Your task to perform on an android device: turn off location Image 0: 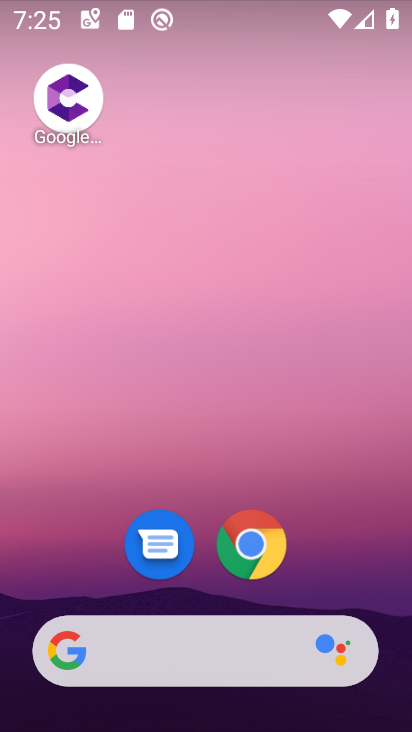
Step 0: drag from (238, 692) to (304, 9)
Your task to perform on an android device: turn off location Image 1: 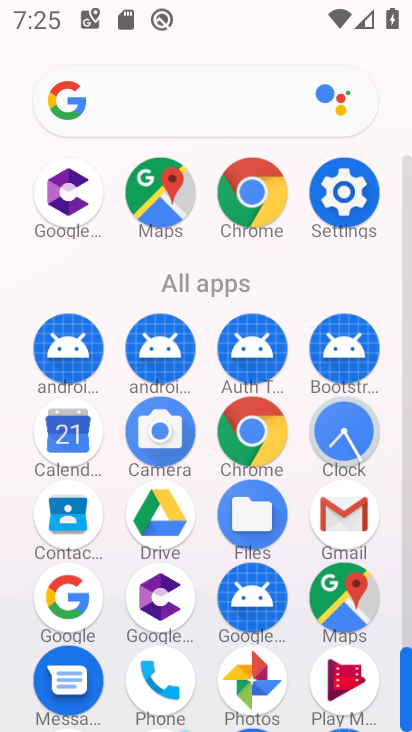
Step 1: click (340, 204)
Your task to perform on an android device: turn off location Image 2: 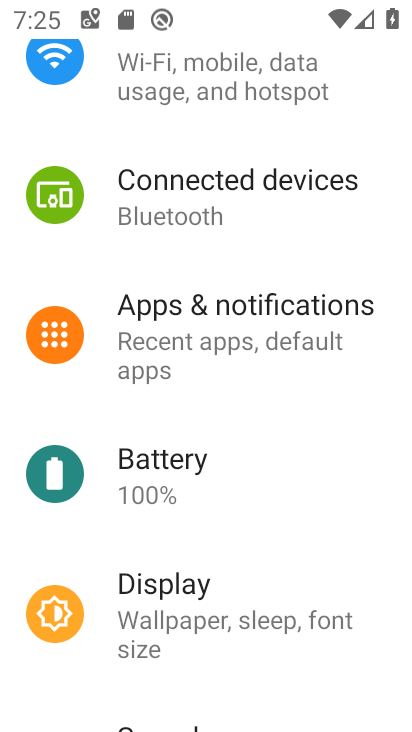
Step 2: drag from (192, 141) to (140, 579)
Your task to perform on an android device: turn off location Image 3: 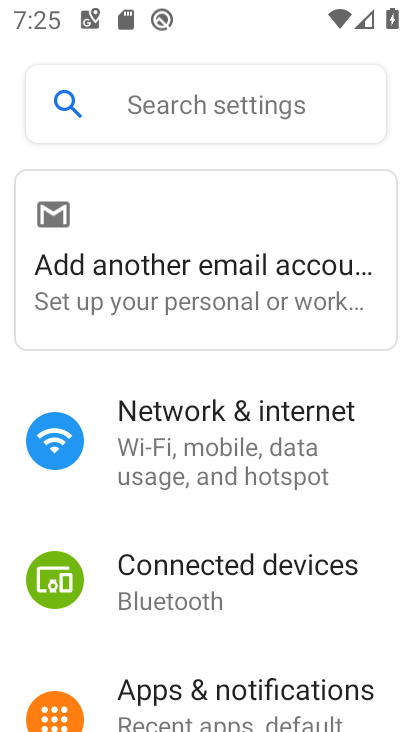
Step 3: click (183, 101)
Your task to perform on an android device: turn off location Image 4: 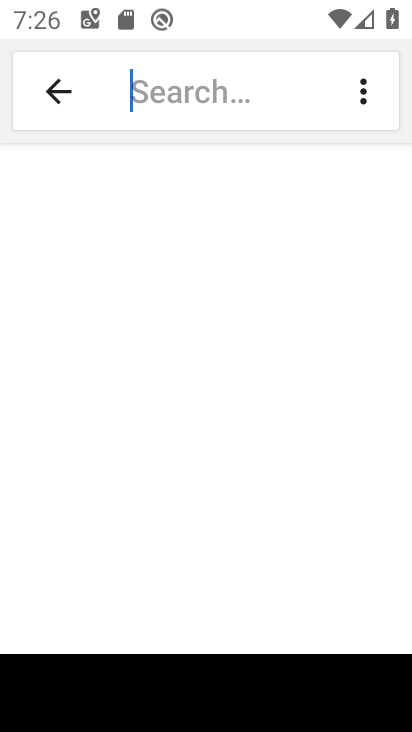
Step 4: drag from (392, 698) to (370, 599)
Your task to perform on an android device: turn off location Image 5: 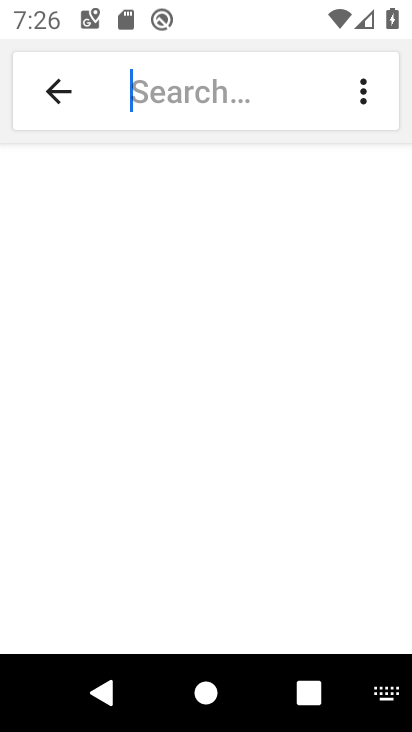
Step 5: click (393, 698)
Your task to perform on an android device: turn off location Image 6: 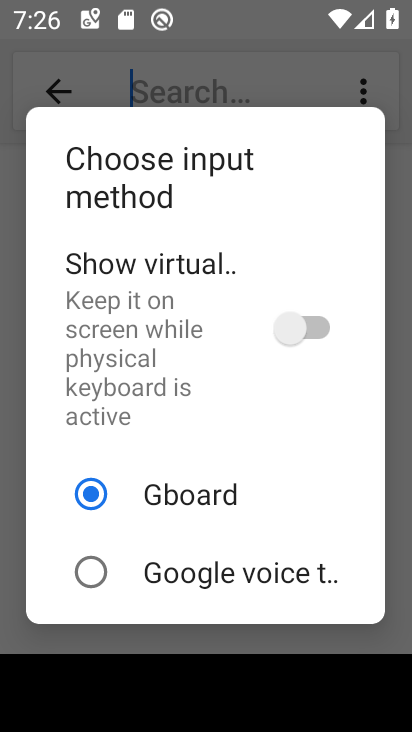
Step 6: click (313, 330)
Your task to perform on an android device: turn off location Image 7: 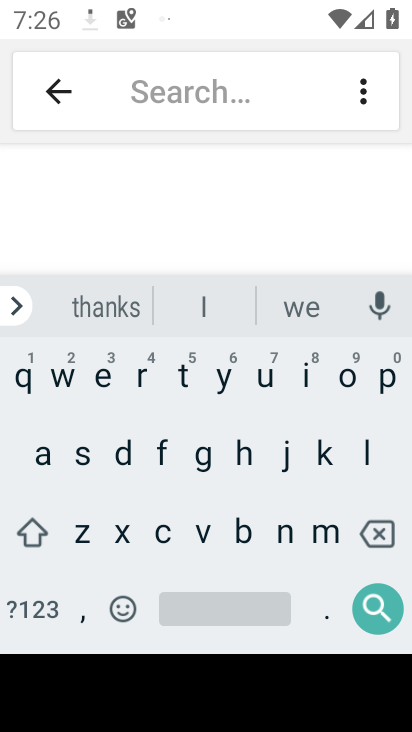
Step 7: click (367, 449)
Your task to perform on an android device: turn off location Image 8: 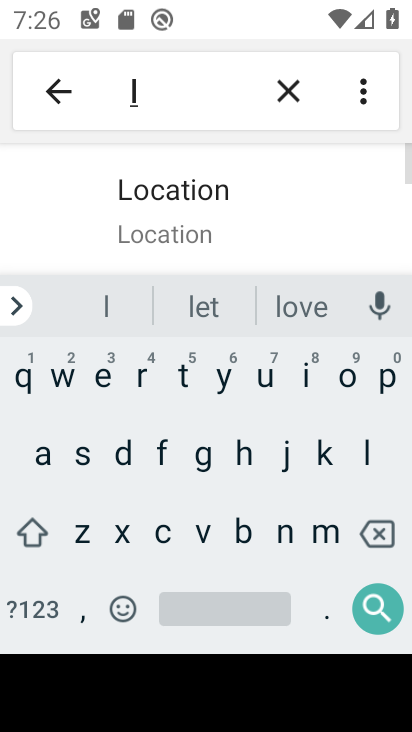
Step 8: click (347, 392)
Your task to perform on an android device: turn off location Image 9: 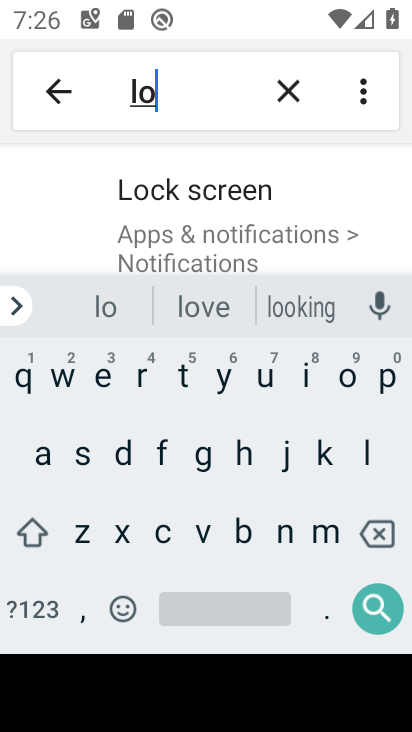
Step 9: click (381, 527)
Your task to perform on an android device: turn off location Image 10: 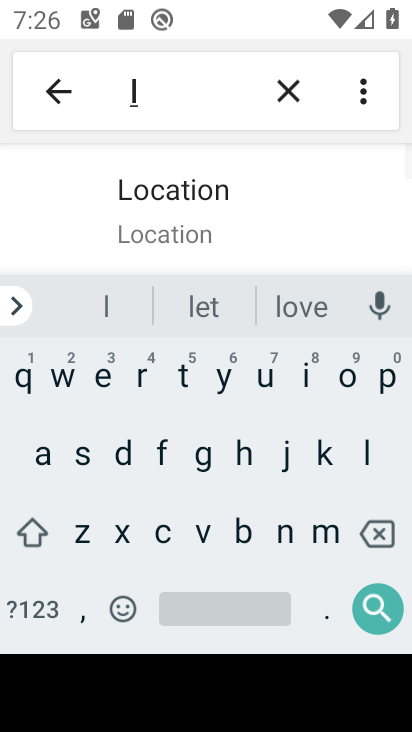
Step 10: click (191, 206)
Your task to perform on an android device: turn off location Image 11: 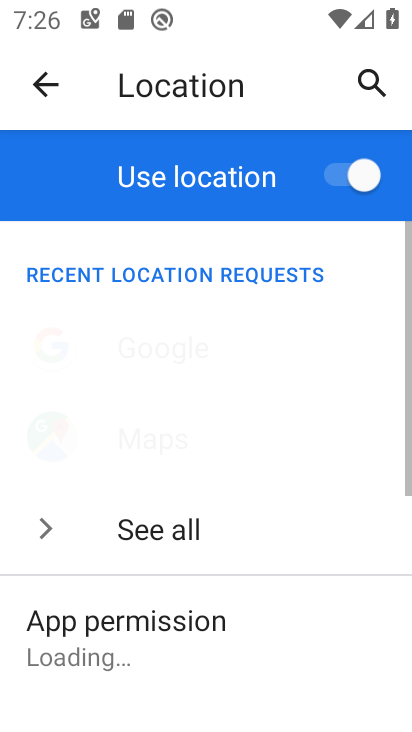
Step 11: click (176, 221)
Your task to perform on an android device: turn off location Image 12: 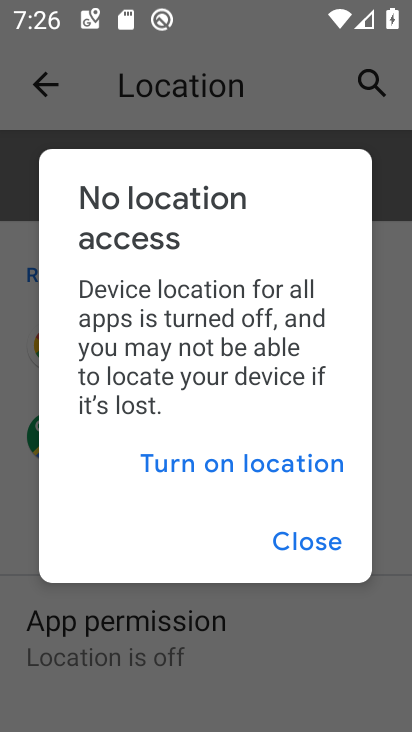
Step 12: click (302, 534)
Your task to perform on an android device: turn off location Image 13: 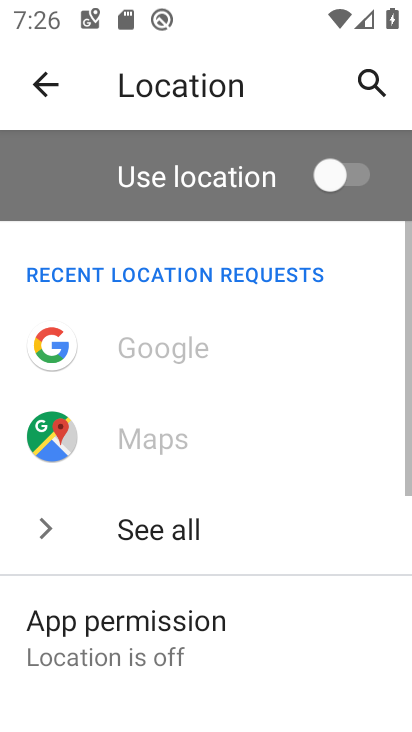
Step 13: task complete